Your task to perform on an android device: Check the news Image 0: 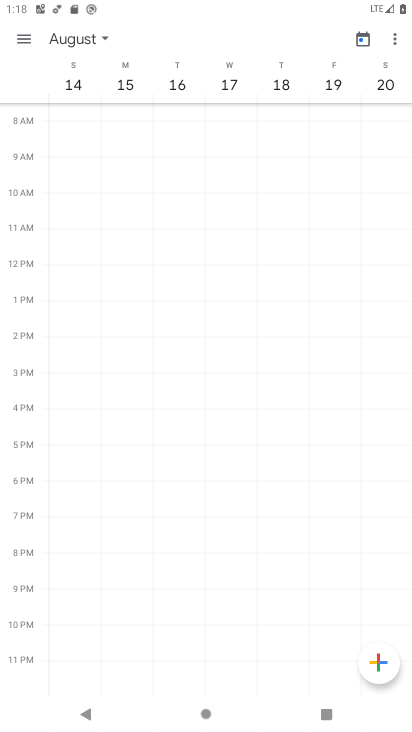
Step 0: press home button
Your task to perform on an android device: Check the news Image 1: 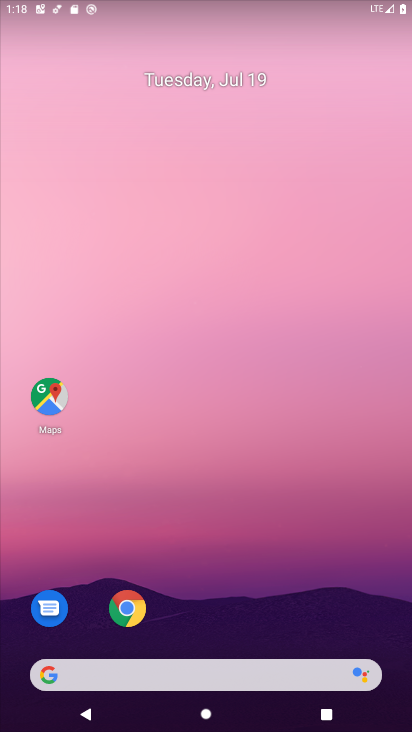
Step 1: drag from (262, 644) to (343, 126)
Your task to perform on an android device: Check the news Image 2: 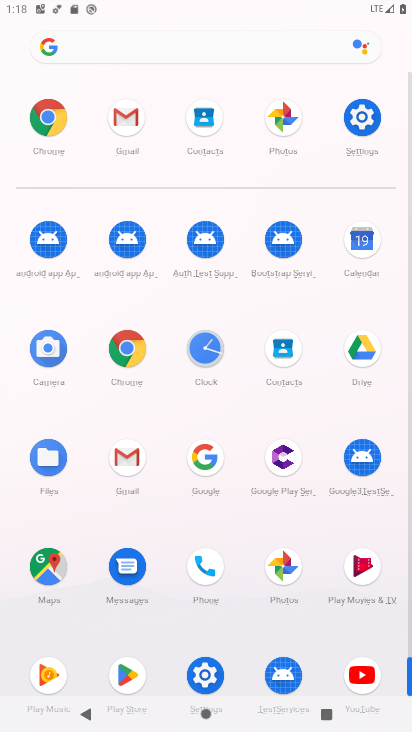
Step 2: click (206, 461)
Your task to perform on an android device: Check the news Image 3: 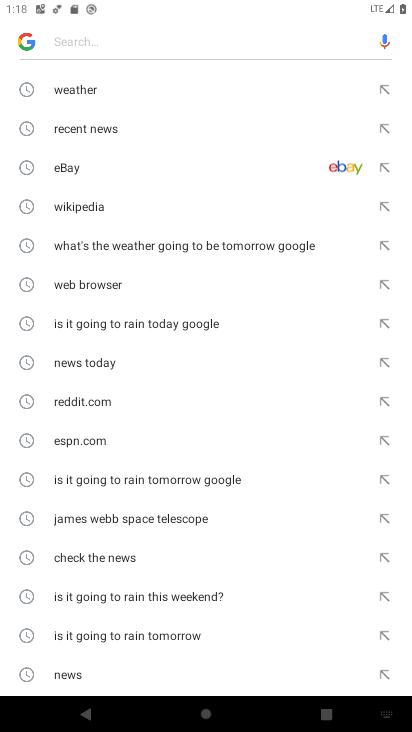
Step 3: click (139, 135)
Your task to perform on an android device: Check the news Image 4: 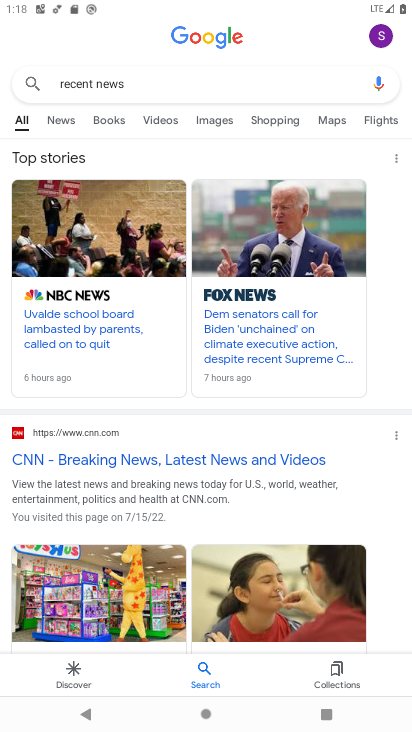
Step 4: task complete